Your task to perform on an android device: open a bookmark in the chrome app Image 0: 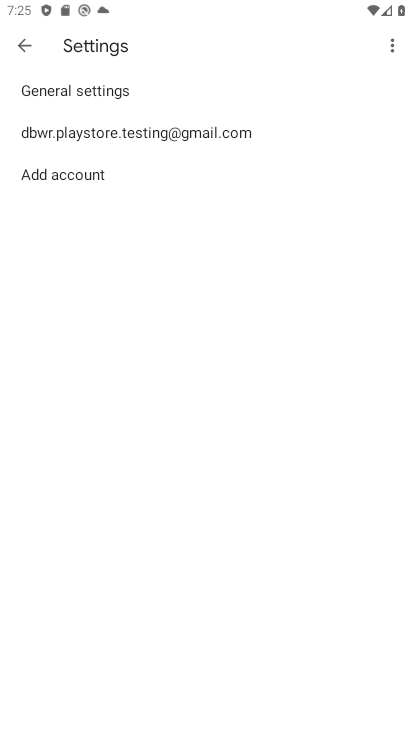
Step 0: press back button
Your task to perform on an android device: open a bookmark in the chrome app Image 1: 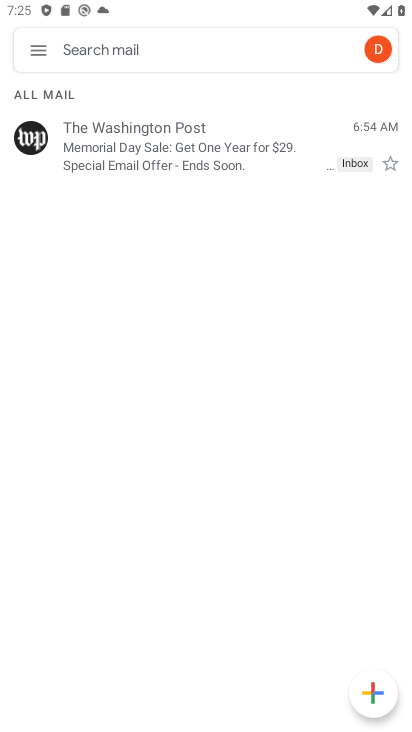
Step 1: press back button
Your task to perform on an android device: open a bookmark in the chrome app Image 2: 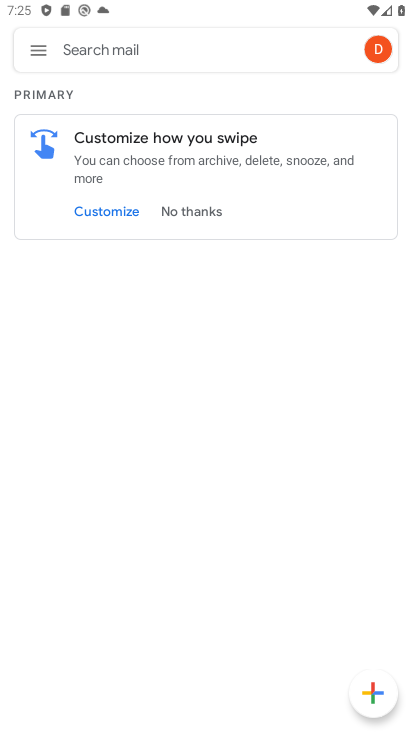
Step 2: press back button
Your task to perform on an android device: open a bookmark in the chrome app Image 3: 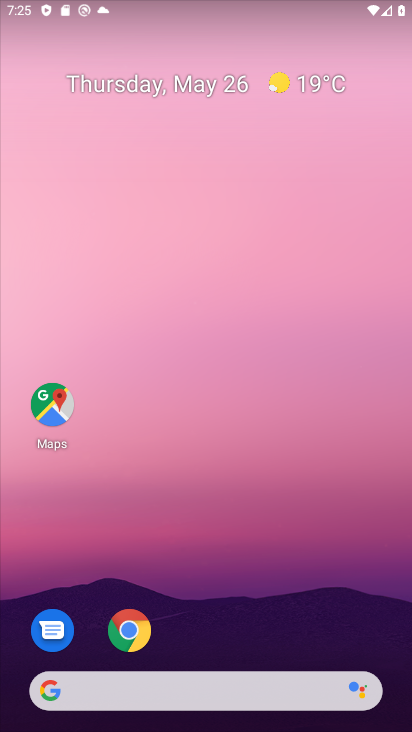
Step 3: click (131, 630)
Your task to perform on an android device: open a bookmark in the chrome app Image 4: 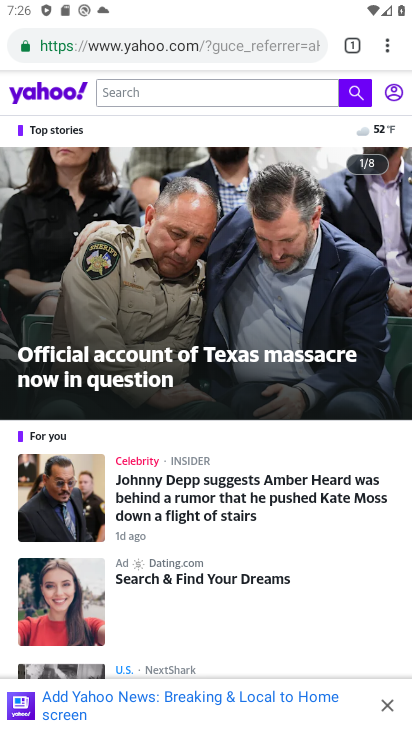
Step 4: click (387, 41)
Your task to perform on an android device: open a bookmark in the chrome app Image 5: 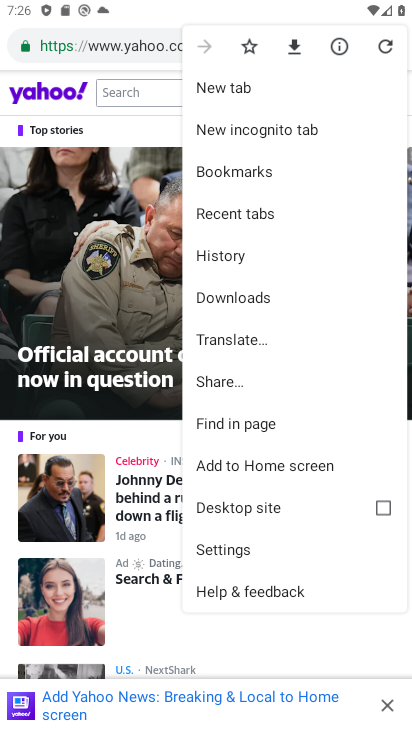
Step 5: click (253, 173)
Your task to perform on an android device: open a bookmark in the chrome app Image 6: 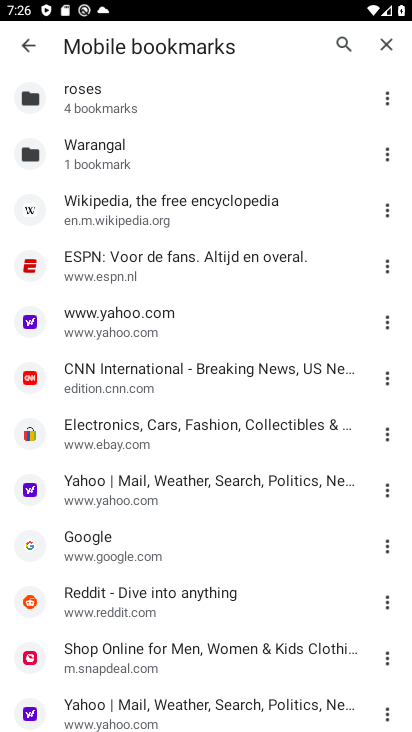
Step 6: task complete